Your task to perform on an android device: search for starred emails in the gmail app Image 0: 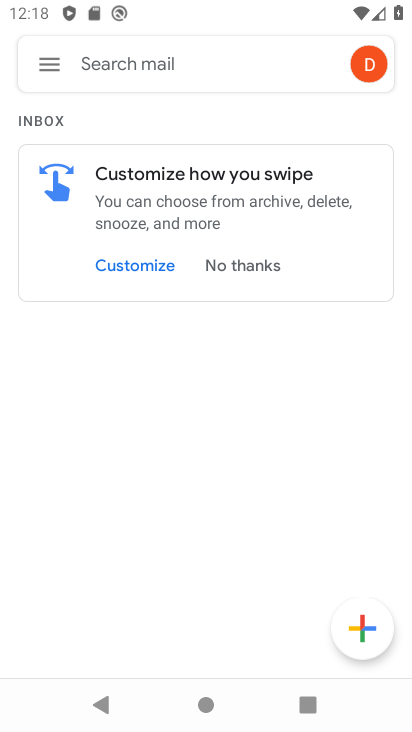
Step 0: click (54, 64)
Your task to perform on an android device: search for starred emails in the gmail app Image 1: 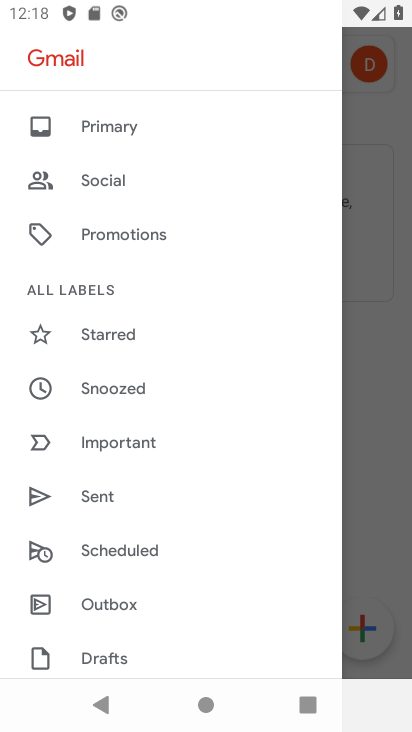
Step 1: click (130, 332)
Your task to perform on an android device: search for starred emails in the gmail app Image 2: 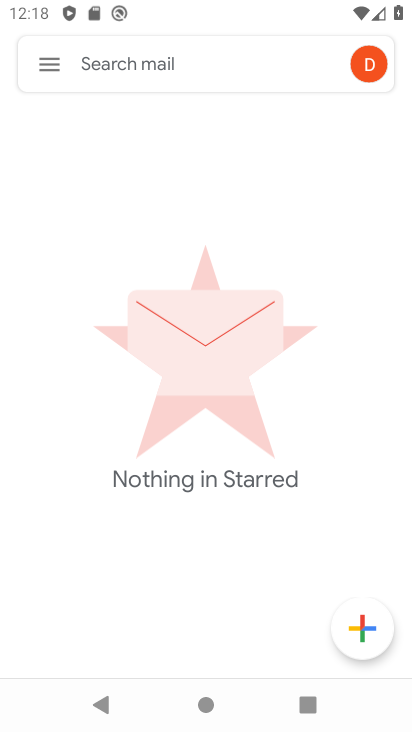
Step 2: task complete